Your task to perform on an android device: Clear all items from cart on ebay.com. Image 0: 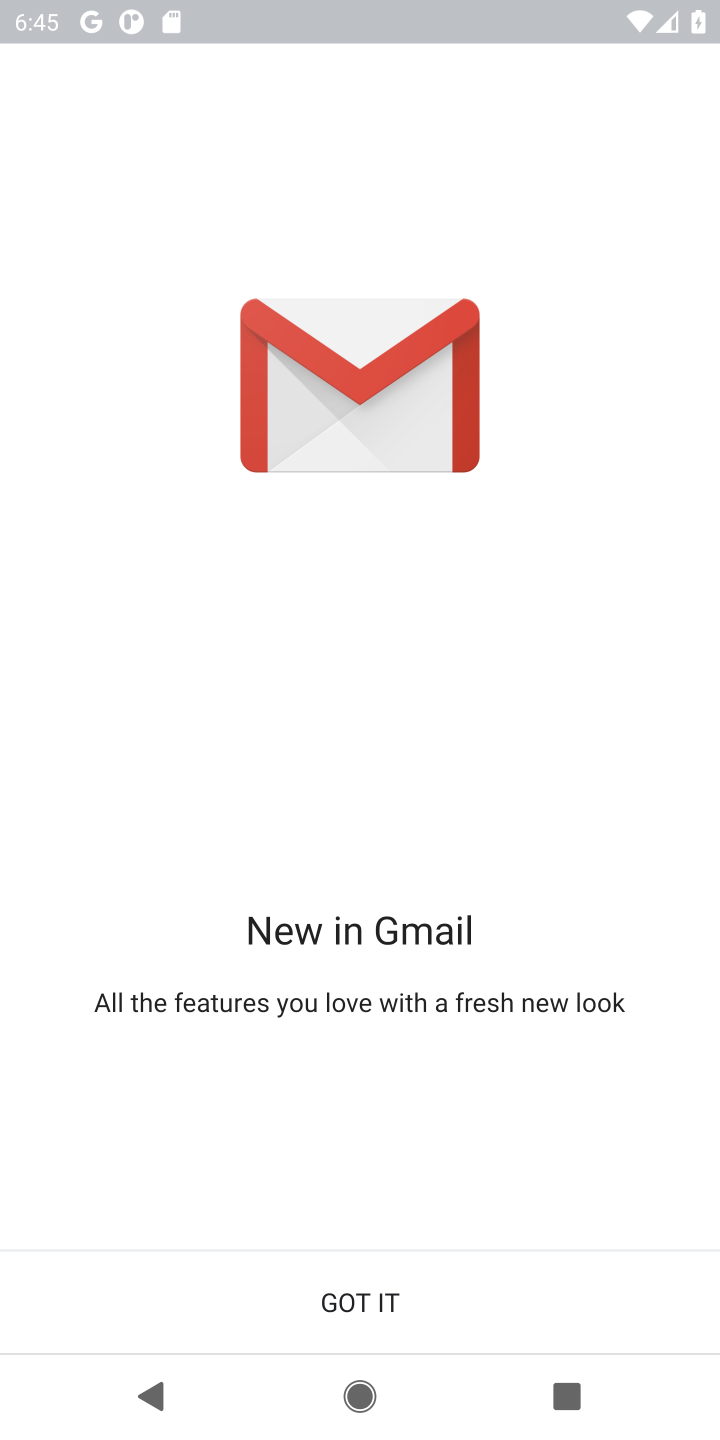
Step 0: press home button
Your task to perform on an android device: Clear all items from cart on ebay.com. Image 1: 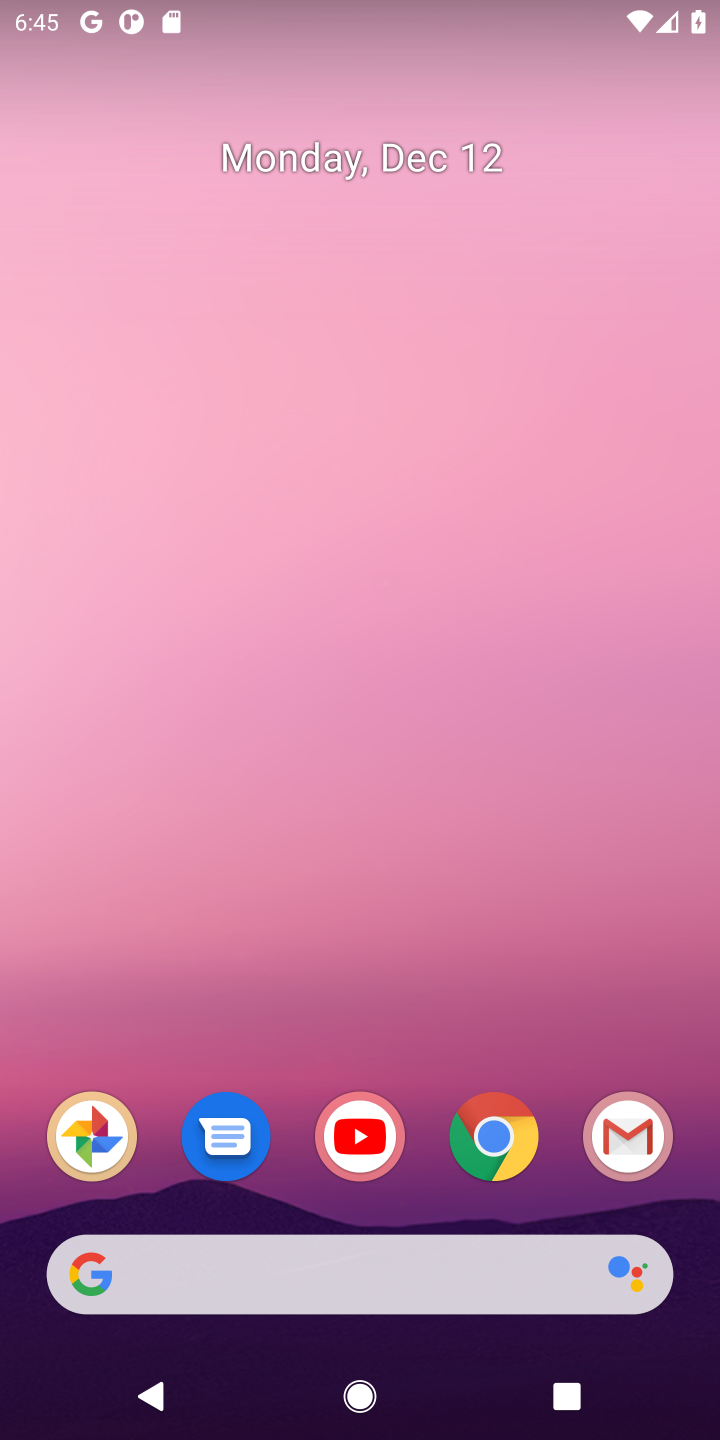
Step 1: click (503, 1158)
Your task to perform on an android device: Clear all items from cart on ebay.com. Image 2: 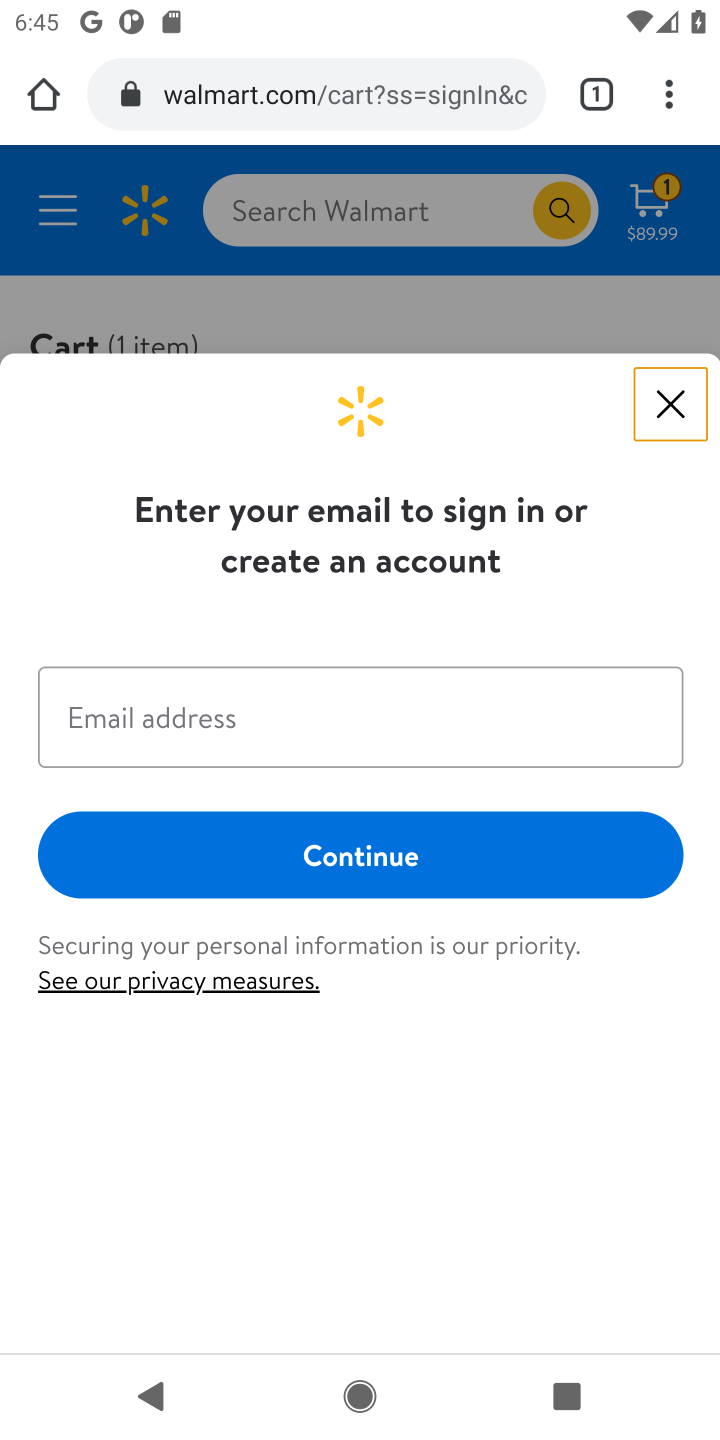
Step 2: click (280, 109)
Your task to perform on an android device: Clear all items from cart on ebay.com. Image 3: 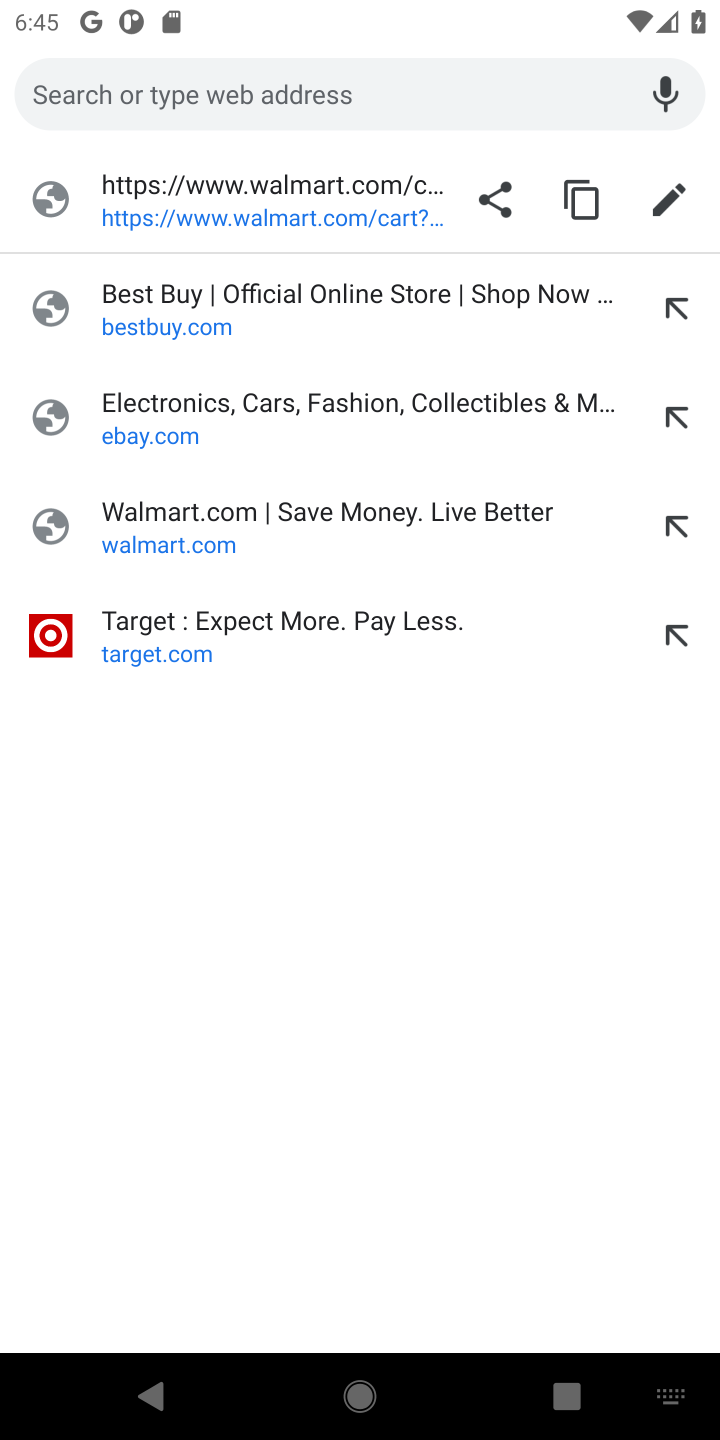
Step 3: click (140, 425)
Your task to perform on an android device: Clear all items from cart on ebay.com. Image 4: 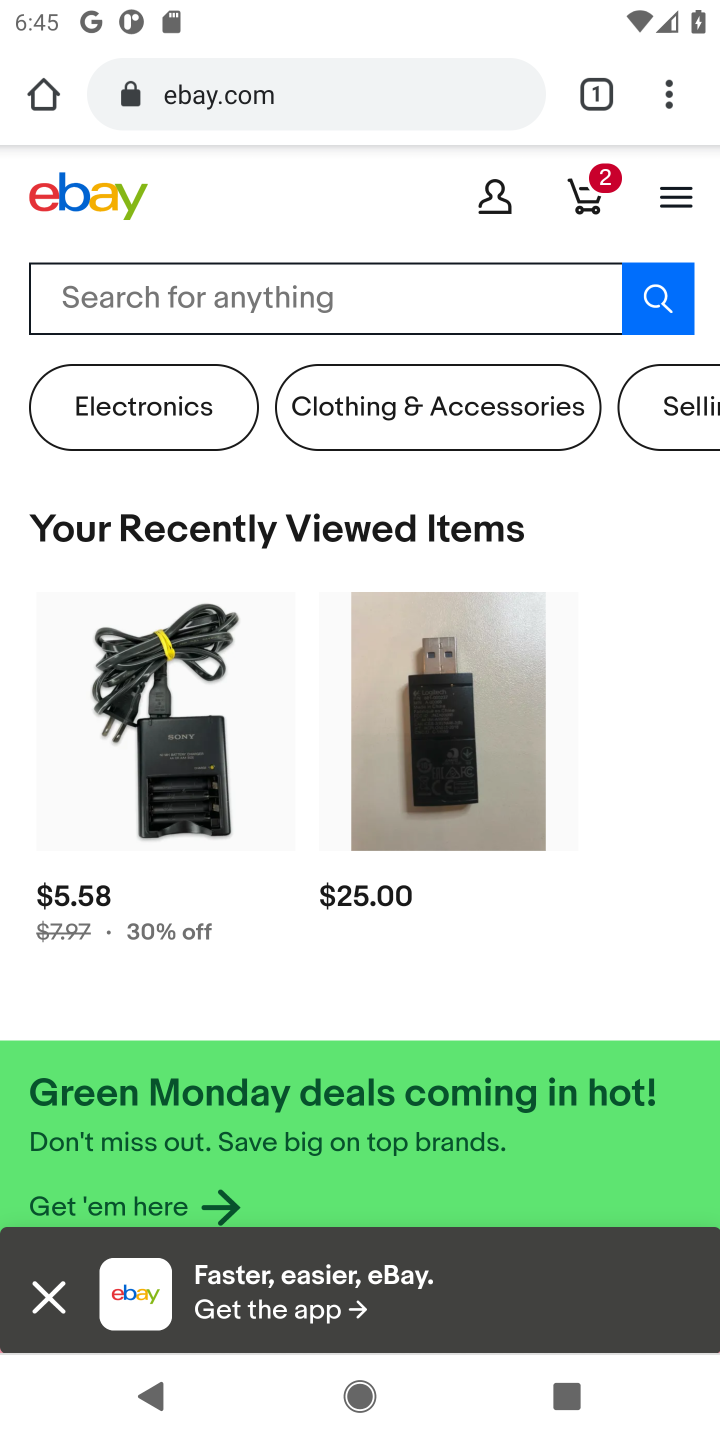
Step 4: click (599, 190)
Your task to perform on an android device: Clear all items from cart on ebay.com. Image 5: 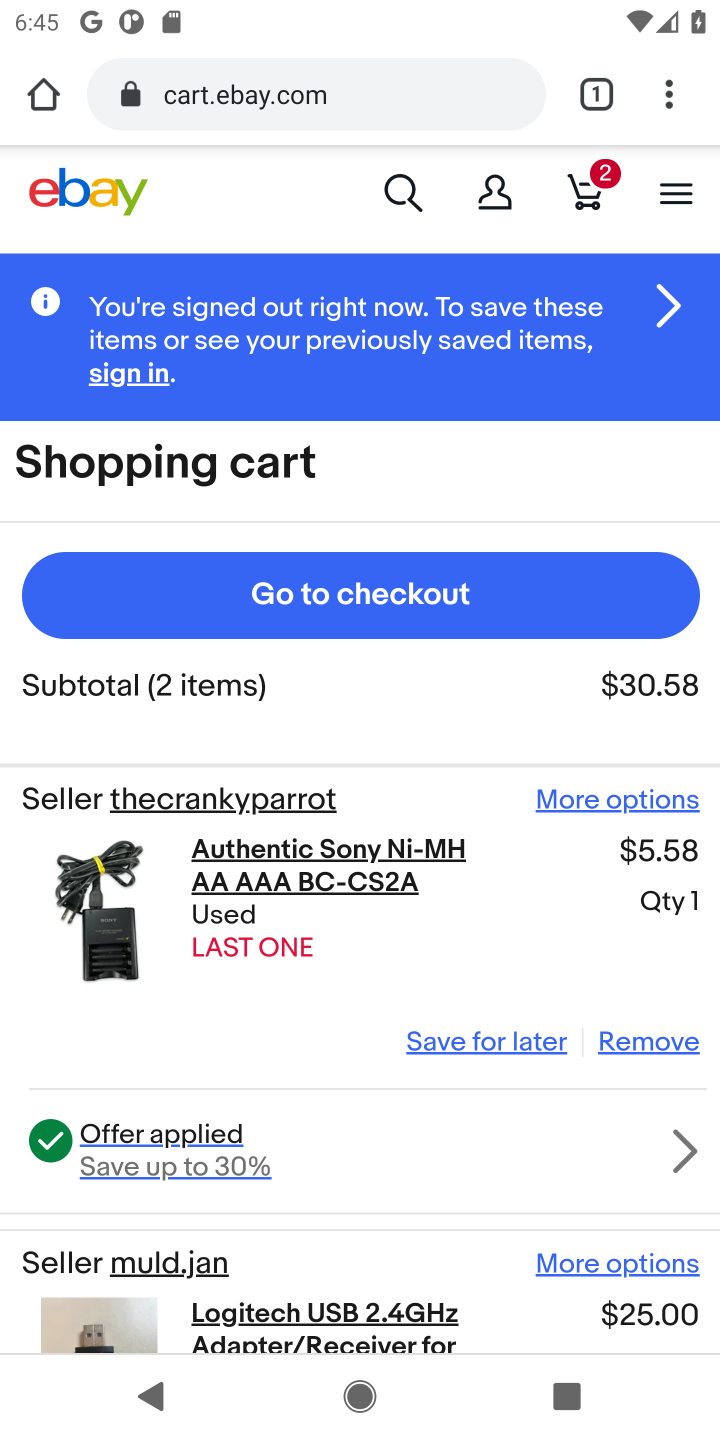
Step 5: click (640, 1048)
Your task to perform on an android device: Clear all items from cart on ebay.com. Image 6: 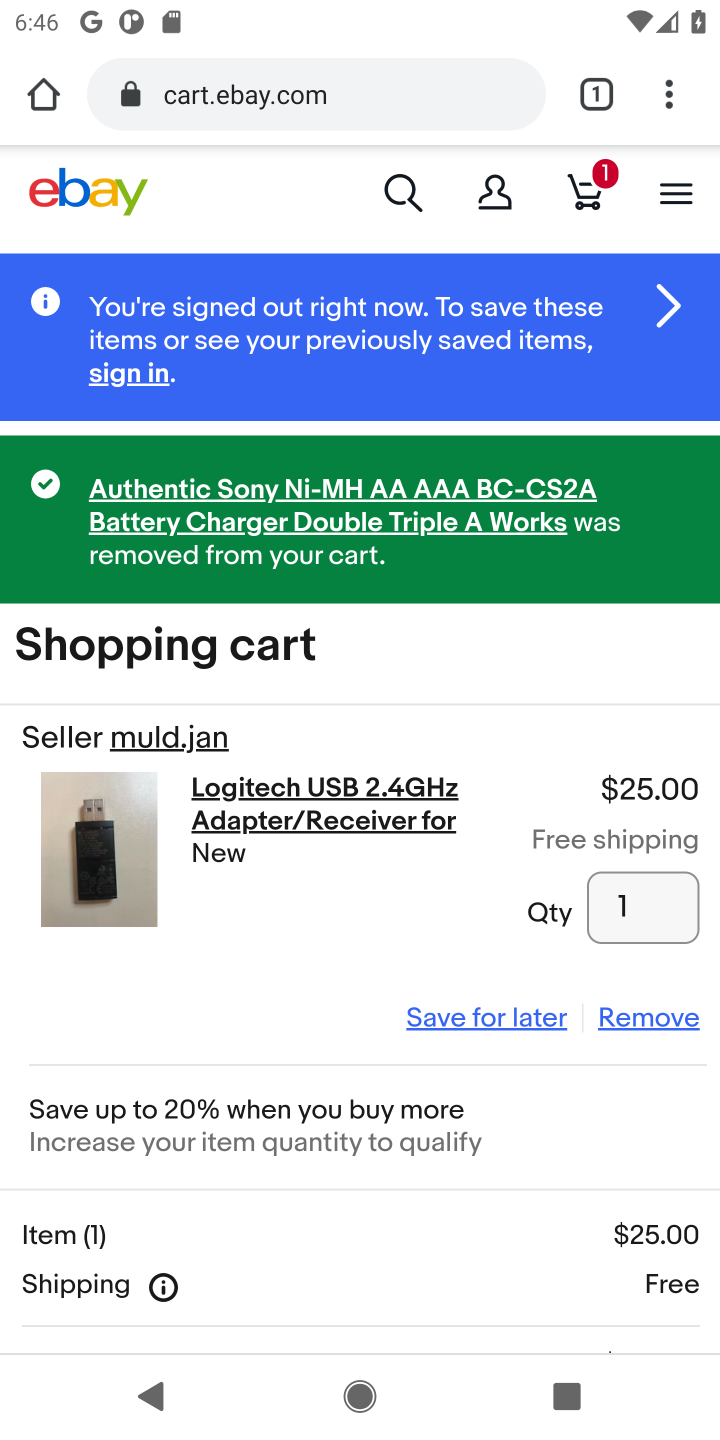
Step 6: click (632, 1028)
Your task to perform on an android device: Clear all items from cart on ebay.com. Image 7: 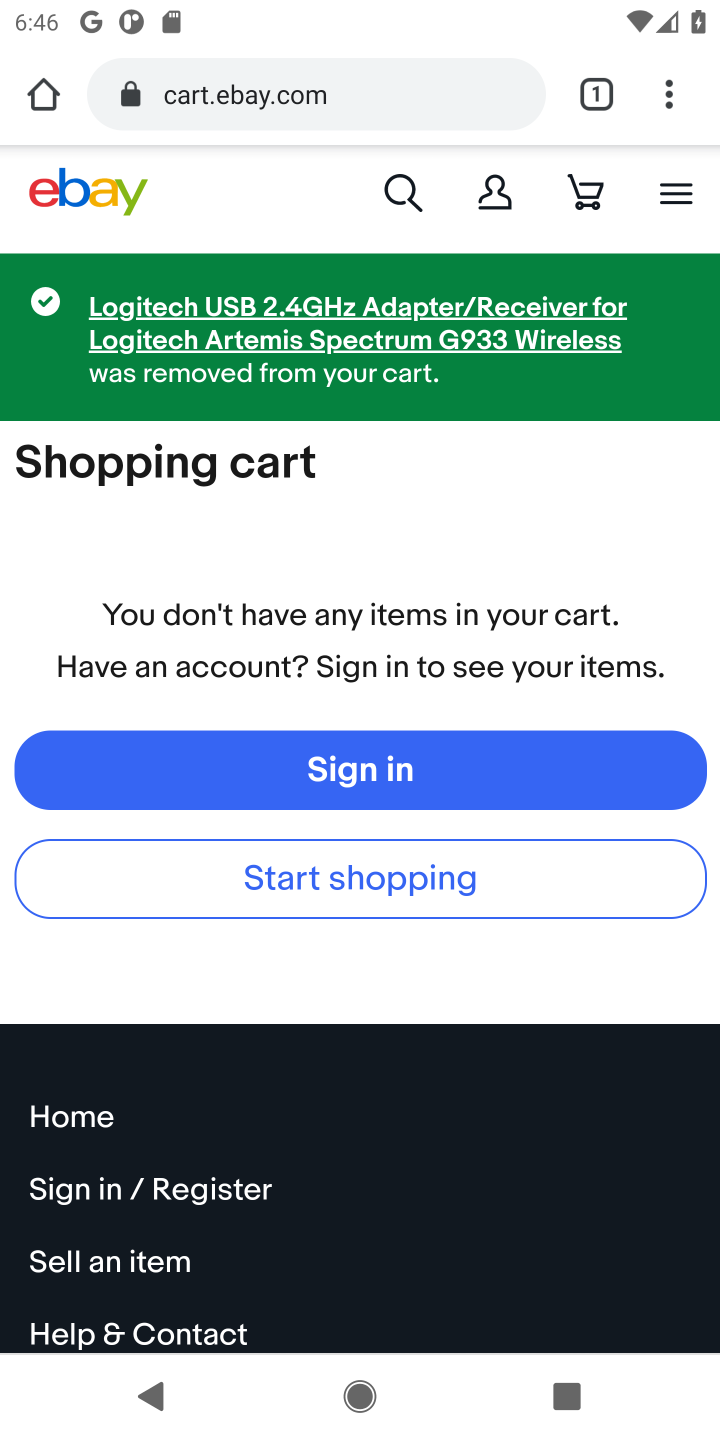
Step 7: task complete